Your task to perform on an android device: Toggle the flashlight Image 0: 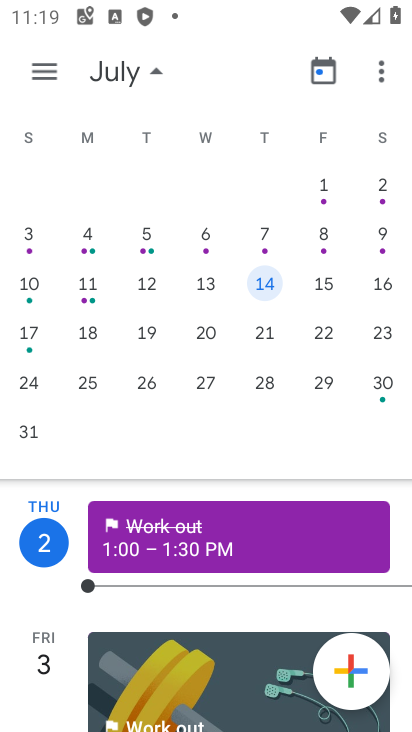
Step 0: press home button
Your task to perform on an android device: Toggle the flashlight Image 1: 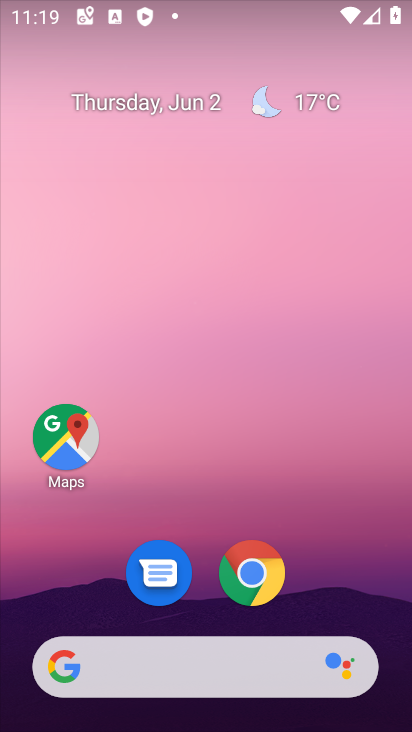
Step 1: drag from (344, 499) to (369, 65)
Your task to perform on an android device: Toggle the flashlight Image 2: 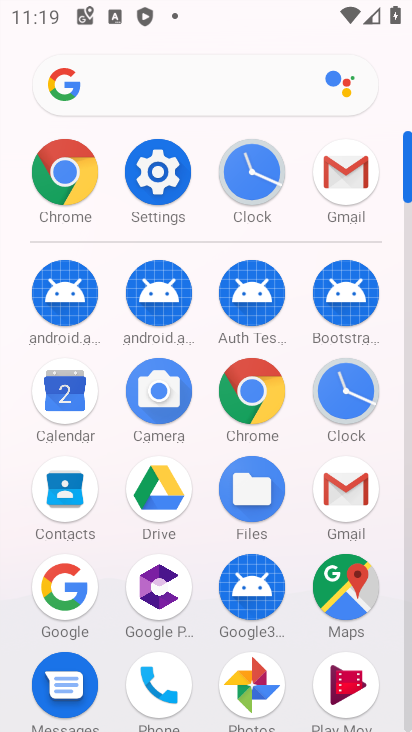
Step 2: click (168, 173)
Your task to perform on an android device: Toggle the flashlight Image 3: 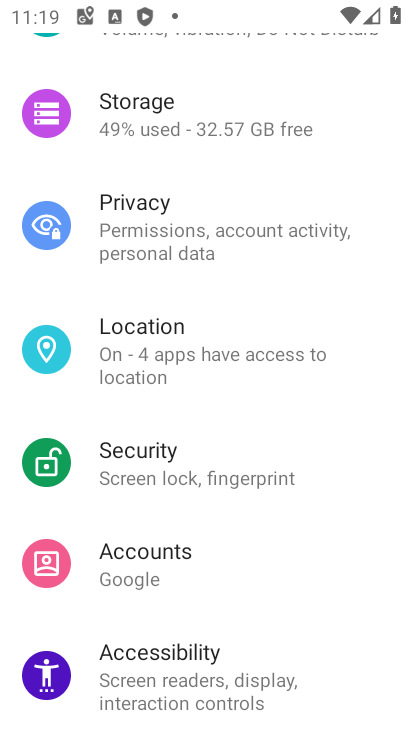
Step 3: task complete